Your task to perform on an android device: Search for seafood restaurants on Google Maps Image 0: 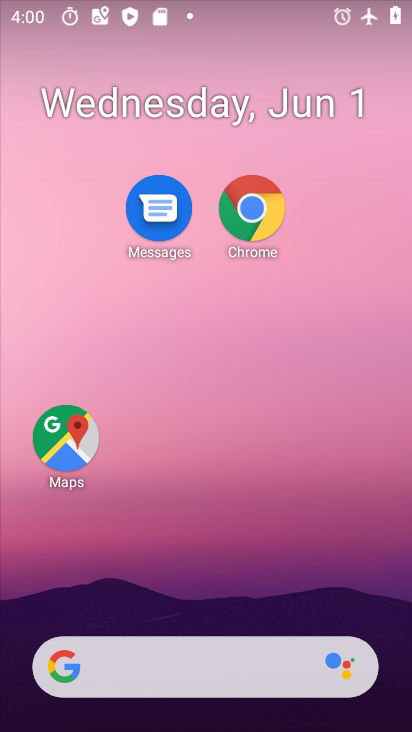
Step 0: click (83, 449)
Your task to perform on an android device: Search for seafood restaurants on Google Maps Image 1: 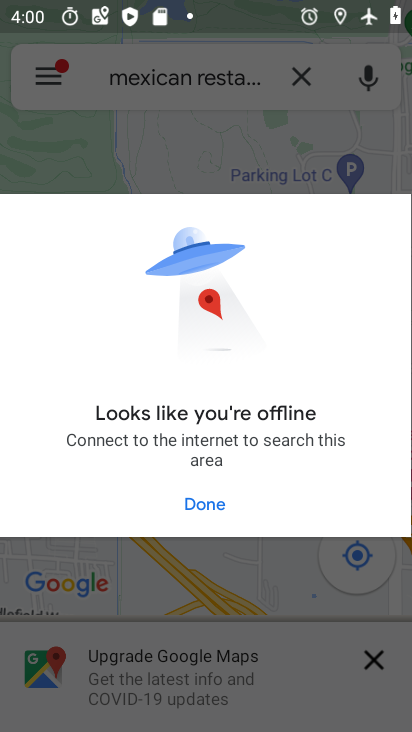
Step 1: click (230, 489)
Your task to perform on an android device: Search for seafood restaurants on Google Maps Image 2: 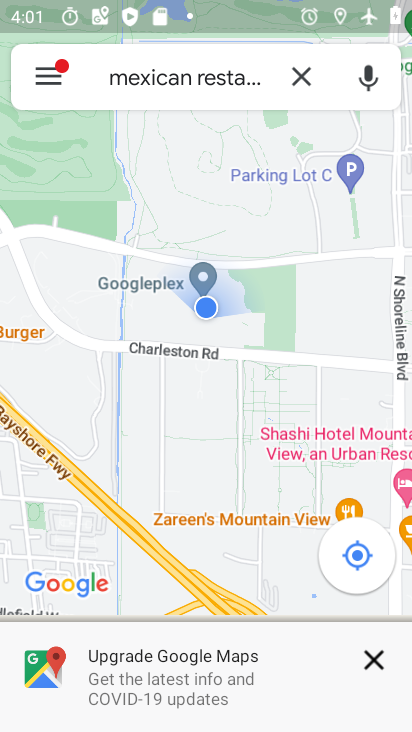
Step 2: click (312, 79)
Your task to perform on an android device: Search for seafood restaurants on Google Maps Image 3: 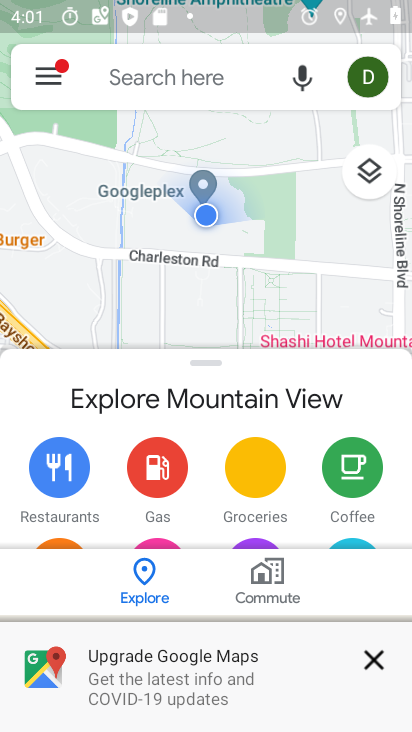
Step 3: click (185, 77)
Your task to perform on an android device: Search for seafood restaurants on Google Maps Image 4: 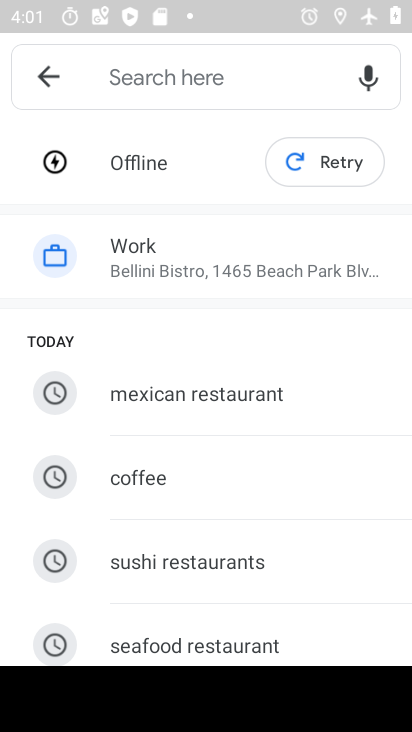
Step 4: click (152, 639)
Your task to perform on an android device: Search for seafood restaurants on Google Maps Image 5: 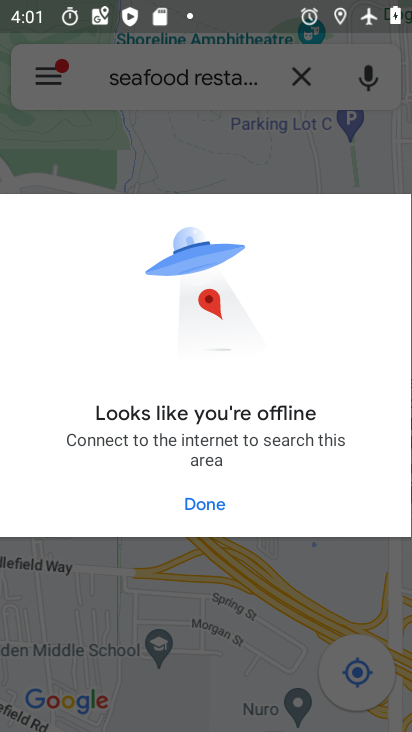
Step 5: task complete